Your task to perform on an android device: Search for custom made wallets on etsy.com Image 0: 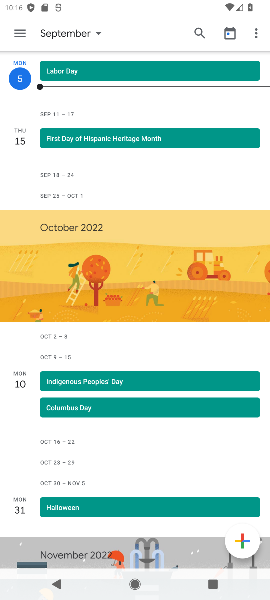
Step 0: task complete